Your task to perform on an android device: Open Google Image 0: 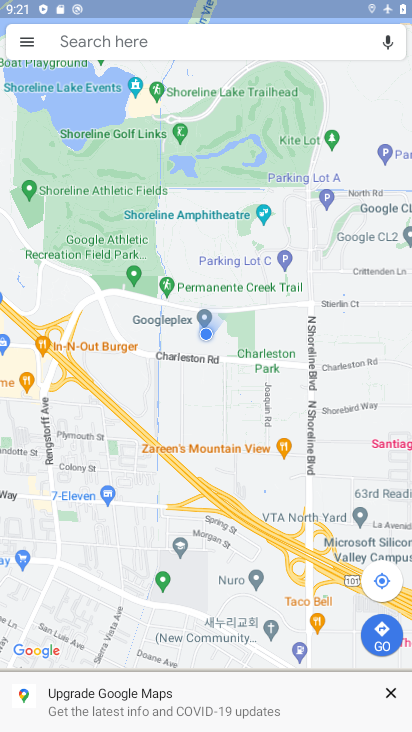
Step 0: press home button
Your task to perform on an android device: Open Google Image 1: 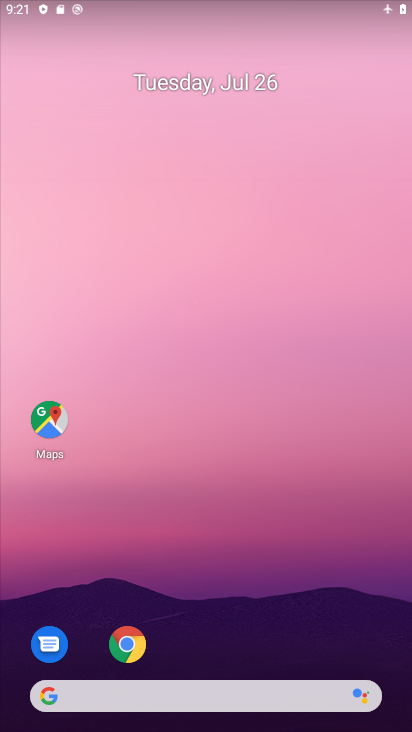
Step 1: click (50, 697)
Your task to perform on an android device: Open Google Image 2: 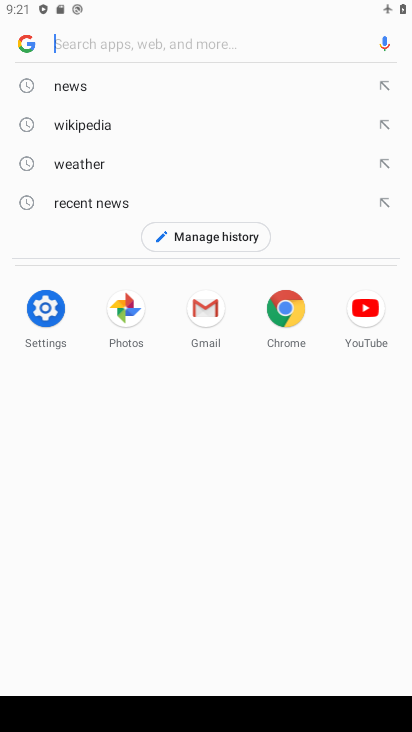
Step 2: click (33, 37)
Your task to perform on an android device: Open Google Image 3: 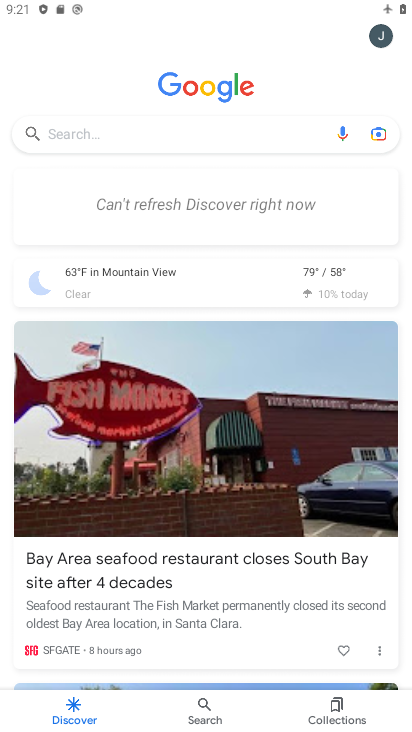
Step 3: task complete